Your task to perform on an android device: Open the web browser Image 0: 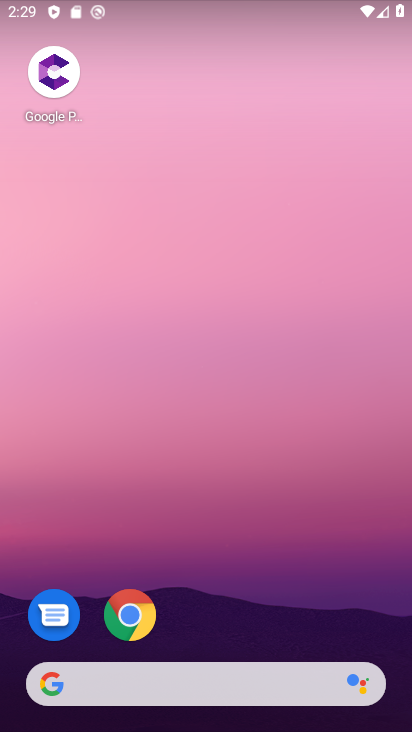
Step 0: drag from (225, 697) to (230, 129)
Your task to perform on an android device: Open the web browser Image 1: 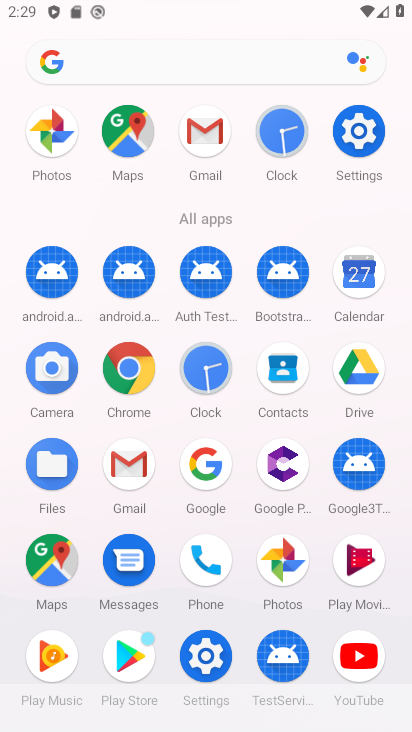
Step 1: click (127, 377)
Your task to perform on an android device: Open the web browser Image 2: 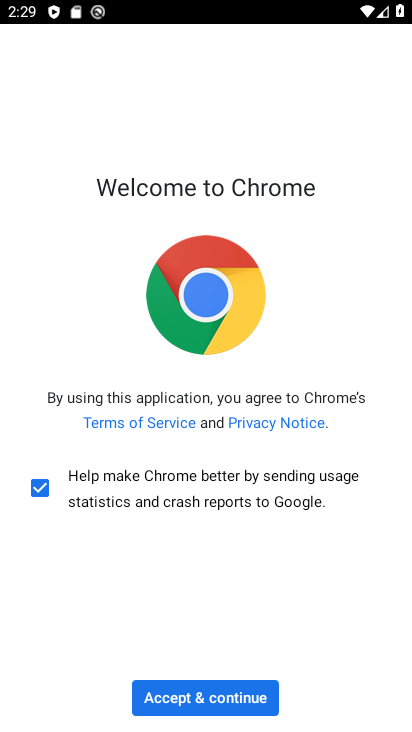
Step 2: click (207, 694)
Your task to perform on an android device: Open the web browser Image 3: 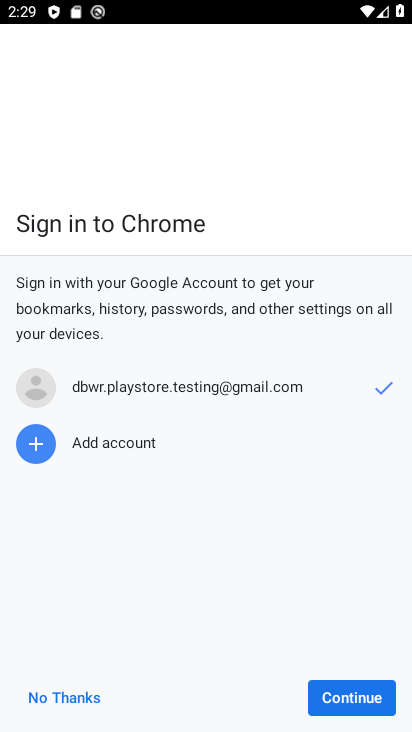
Step 3: click (355, 686)
Your task to perform on an android device: Open the web browser Image 4: 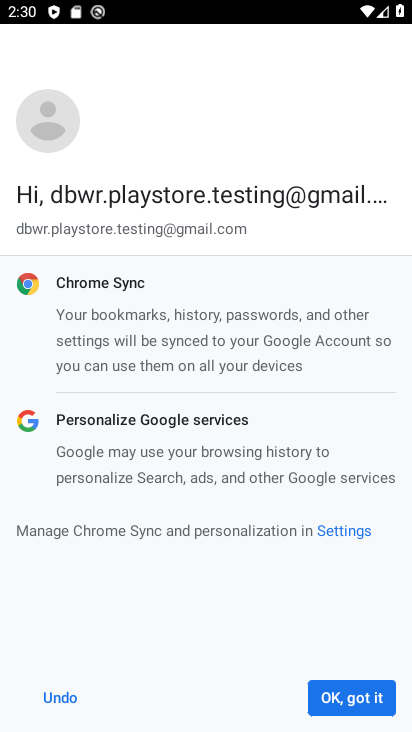
Step 4: click (344, 695)
Your task to perform on an android device: Open the web browser Image 5: 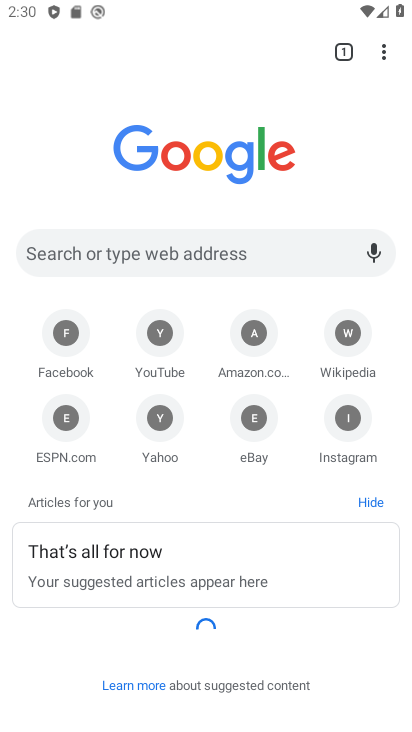
Step 5: click (146, 243)
Your task to perform on an android device: Open the web browser Image 6: 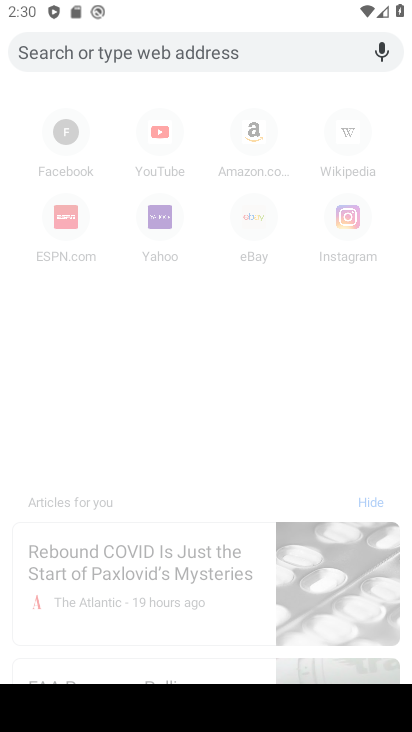
Step 6: task complete